Your task to perform on an android device: toggle translation in the chrome app Image 0: 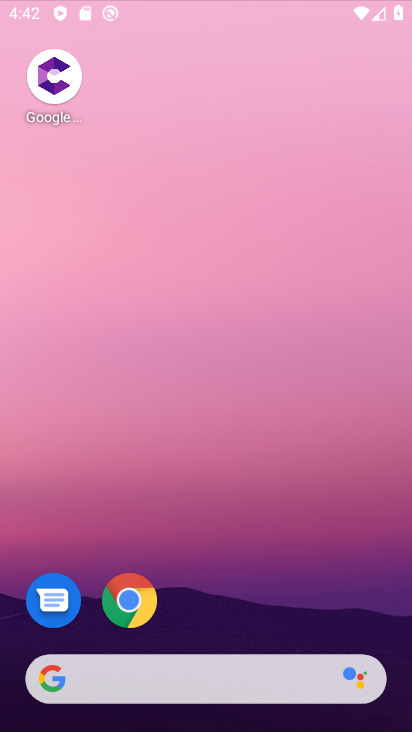
Step 0: click (207, 16)
Your task to perform on an android device: toggle translation in the chrome app Image 1: 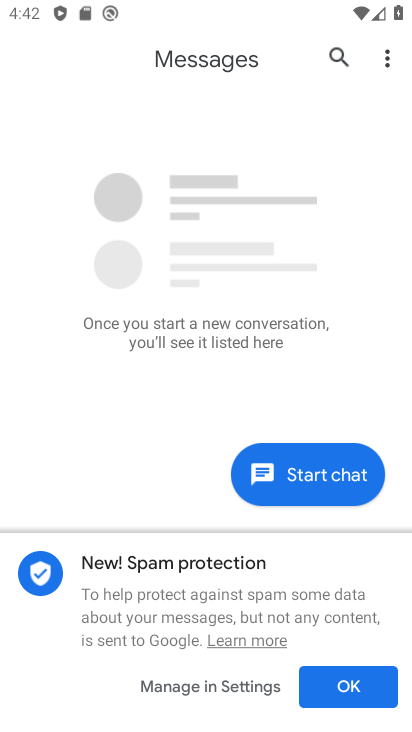
Step 1: click (334, 675)
Your task to perform on an android device: toggle translation in the chrome app Image 2: 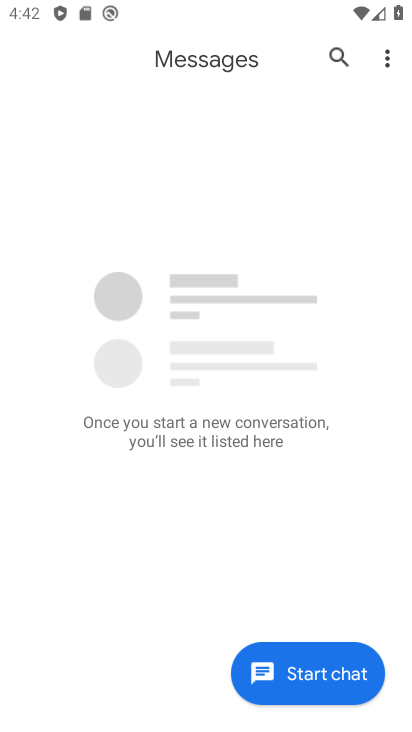
Step 2: press home button
Your task to perform on an android device: toggle translation in the chrome app Image 3: 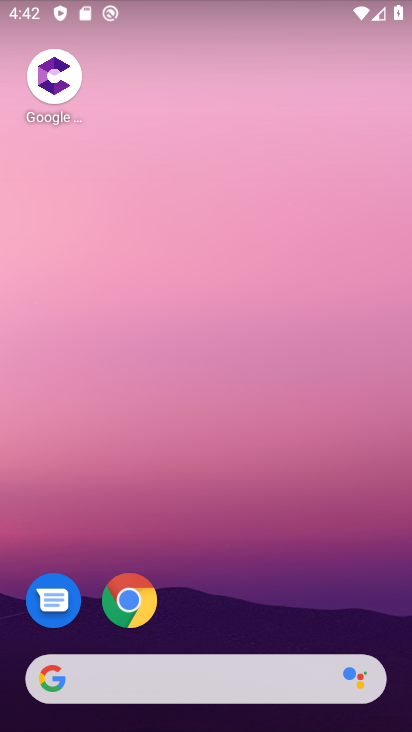
Step 3: click (145, 603)
Your task to perform on an android device: toggle translation in the chrome app Image 4: 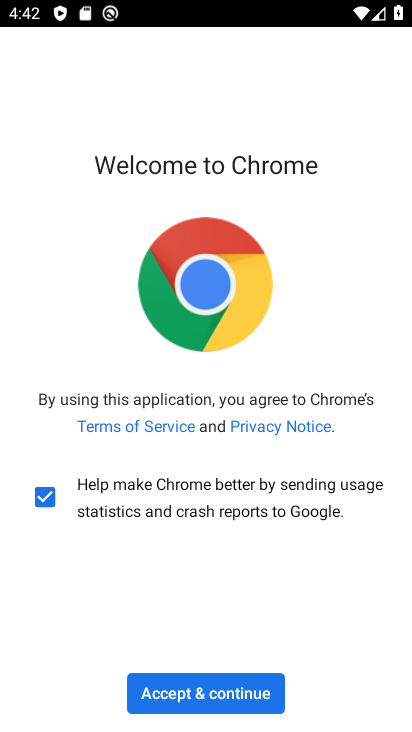
Step 4: click (228, 683)
Your task to perform on an android device: toggle translation in the chrome app Image 5: 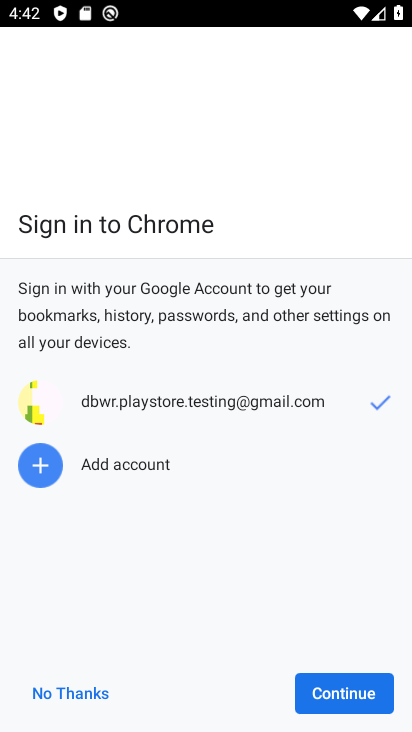
Step 5: click (321, 681)
Your task to perform on an android device: toggle translation in the chrome app Image 6: 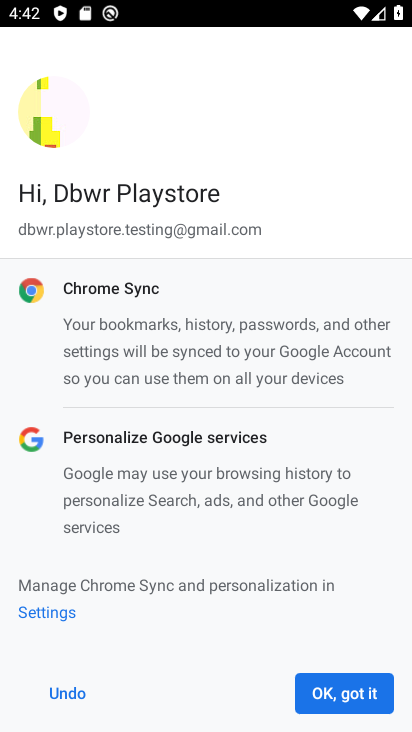
Step 6: click (321, 686)
Your task to perform on an android device: toggle translation in the chrome app Image 7: 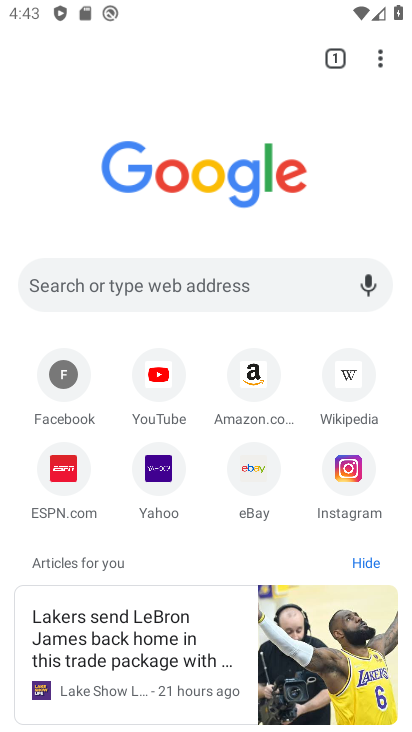
Step 7: click (381, 60)
Your task to perform on an android device: toggle translation in the chrome app Image 8: 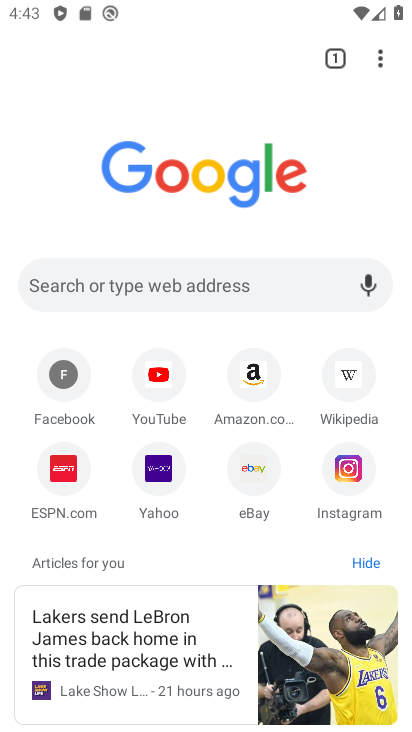
Step 8: click (382, 61)
Your task to perform on an android device: toggle translation in the chrome app Image 9: 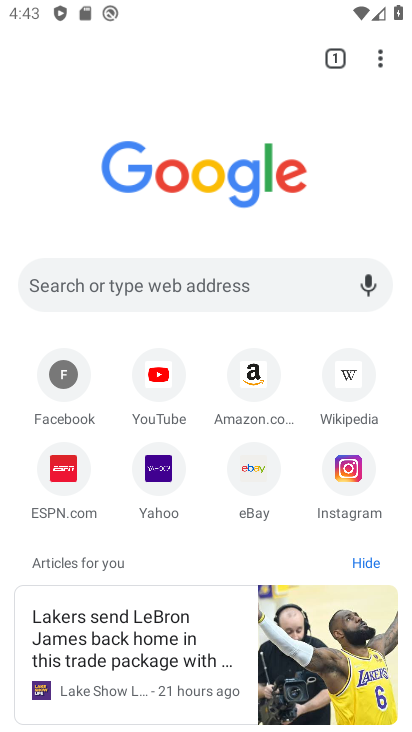
Step 9: click (375, 55)
Your task to perform on an android device: toggle translation in the chrome app Image 10: 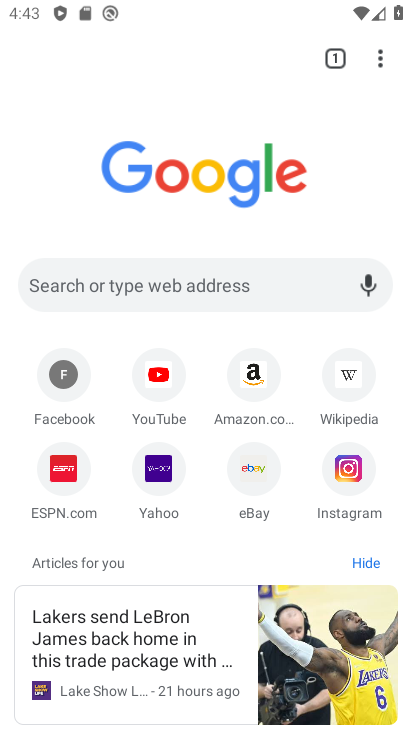
Step 10: click (382, 55)
Your task to perform on an android device: toggle translation in the chrome app Image 11: 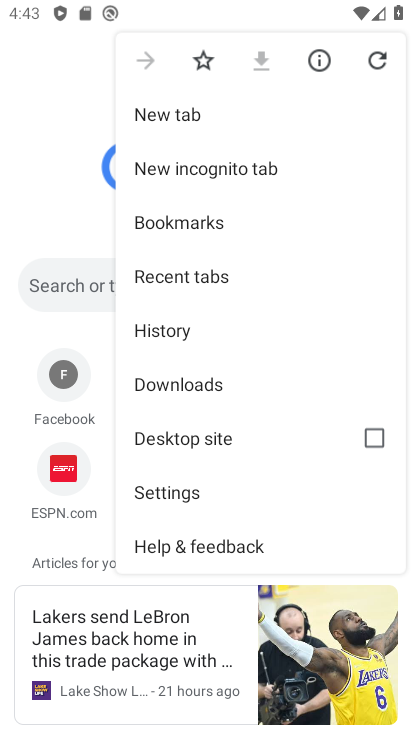
Step 11: click (185, 498)
Your task to perform on an android device: toggle translation in the chrome app Image 12: 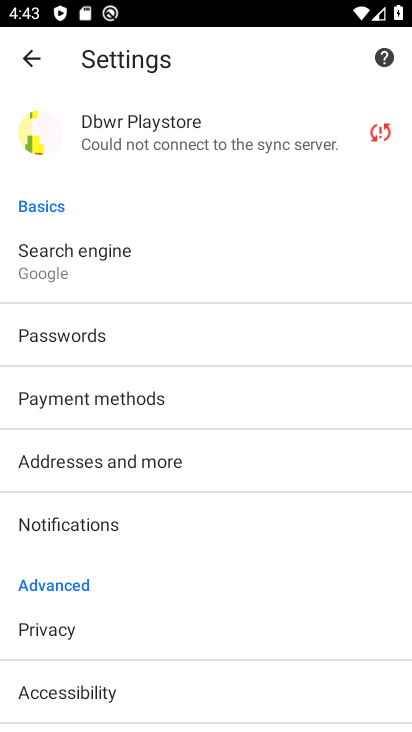
Step 12: drag from (152, 622) to (53, 226)
Your task to perform on an android device: toggle translation in the chrome app Image 13: 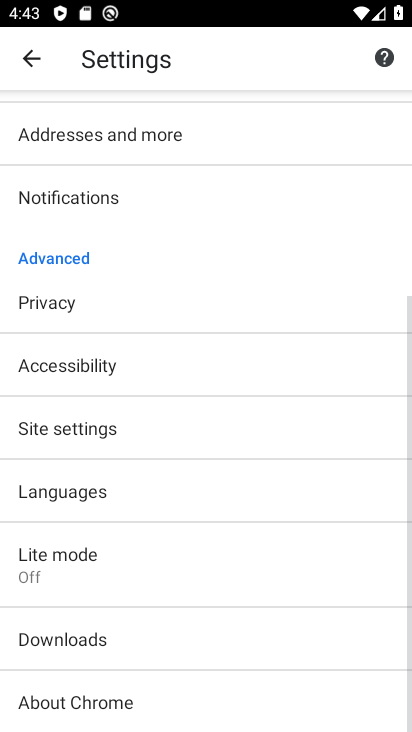
Step 13: click (54, 490)
Your task to perform on an android device: toggle translation in the chrome app Image 14: 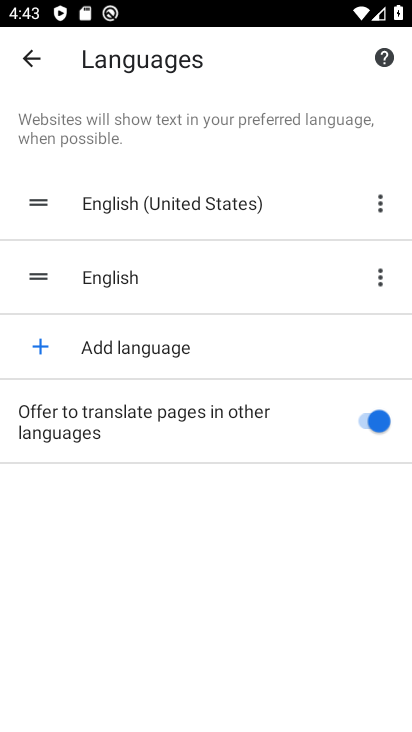
Step 14: click (369, 416)
Your task to perform on an android device: toggle translation in the chrome app Image 15: 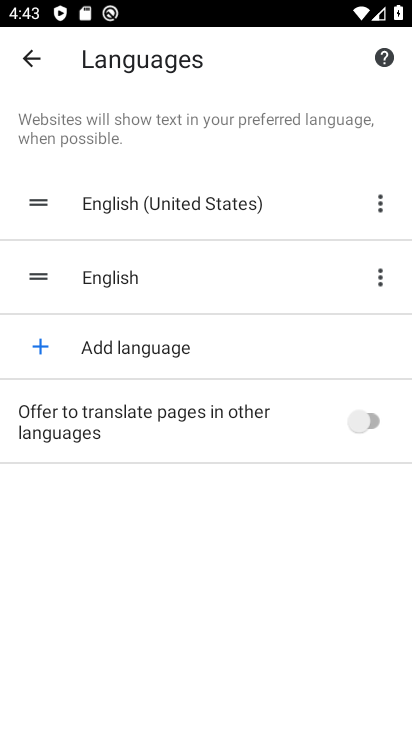
Step 15: task complete